Your task to perform on an android device: When is my next meeting? Image 0: 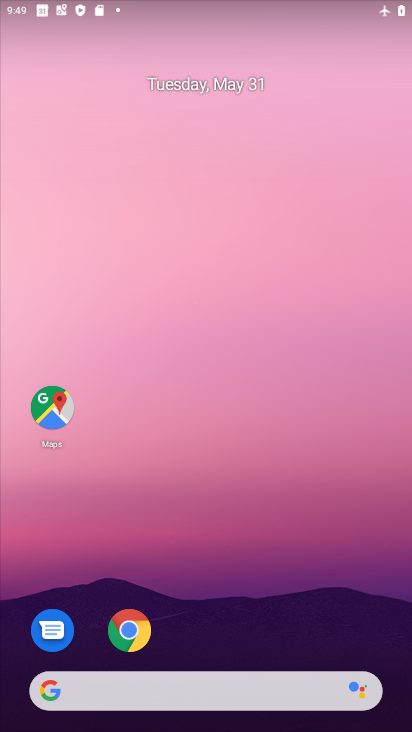
Step 0: click (211, 617)
Your task to perform on an android device: When is my next meeting? Image 1: 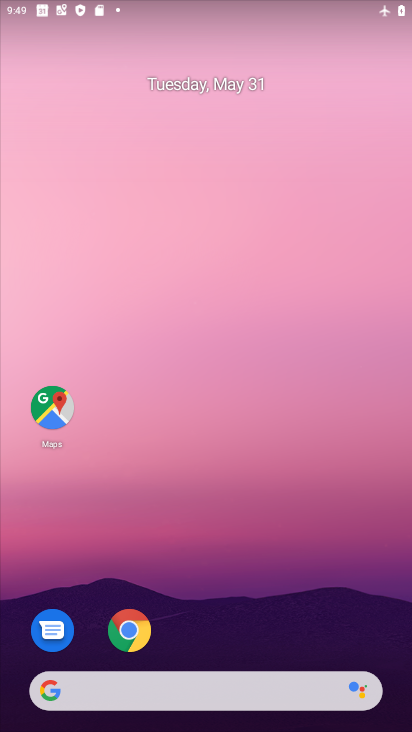
Step 1: click (240, 341)
Your task to perform on an android device: When is my next meeting? Image 2: 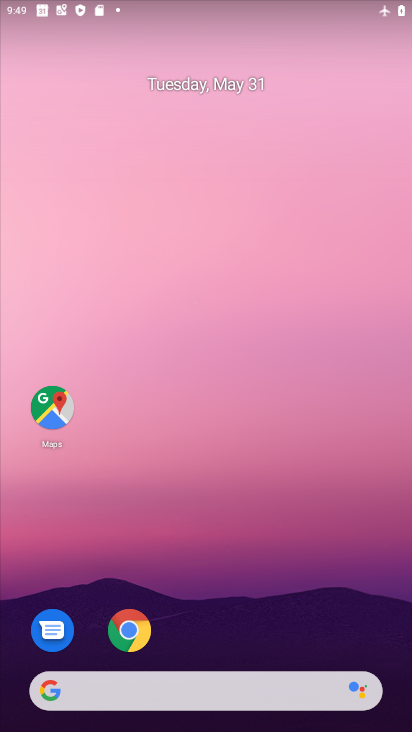
Step 2: drag from (220, 621) to (205, 233)
Your task to perform on an android device: When is my next meeting? Image 3: 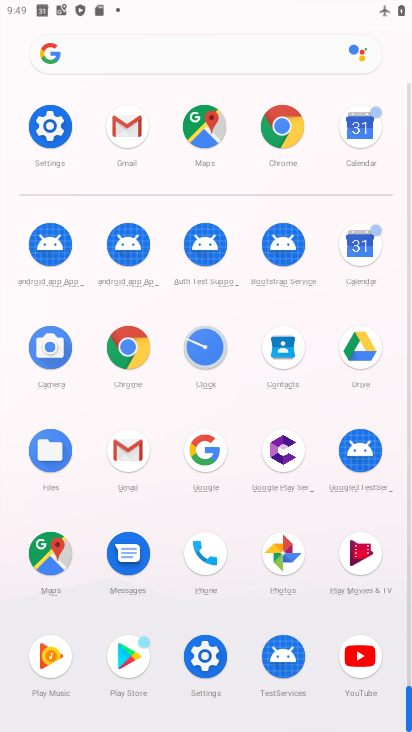
Step 3: click (385, 238)
Your task to perform on an android device: When is my next meeting? Image 4: 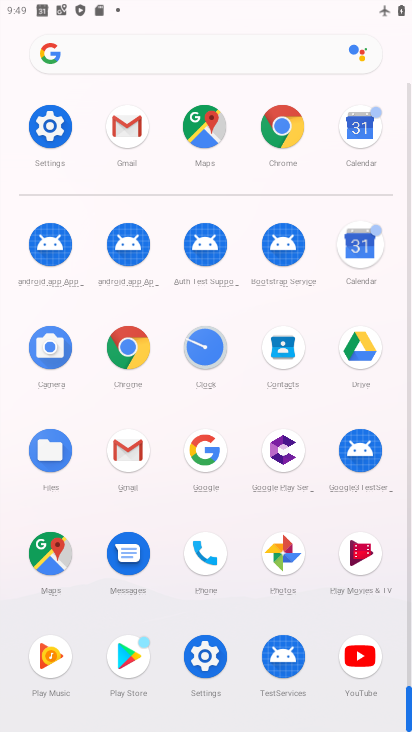
Step 4: click (361, 236)
Your task to perform on an android device: When is my next meeting? Image 5: 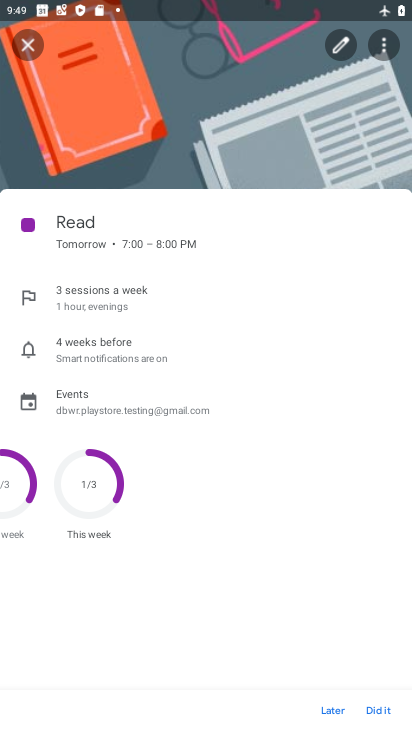
Step 5: click (36, 37)
Your task to perform on an android device: When is my next meeting? Image 6: 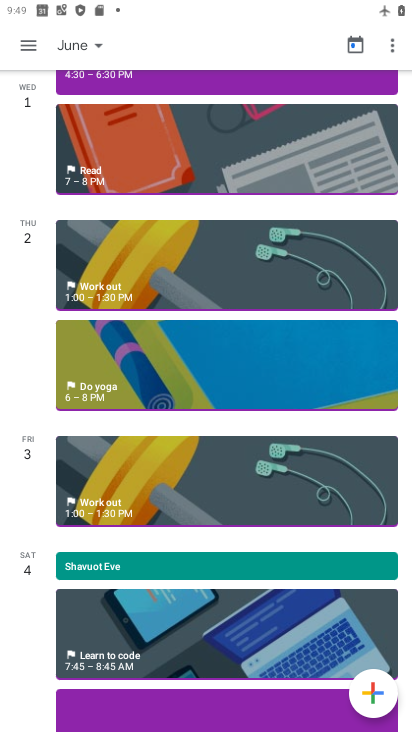
Step 6: click (29, 53)
Your task to perform on an android device: When is my next meeting? Image 7: 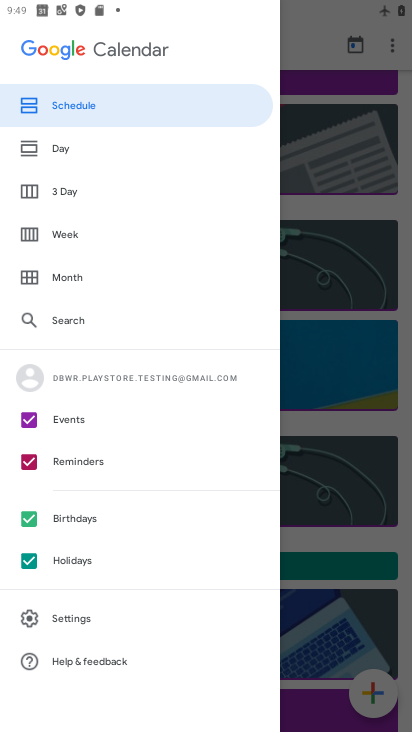
Step 7: click (81, 271)
Your task to perform on an android device: When is my next meeting? Image 8: 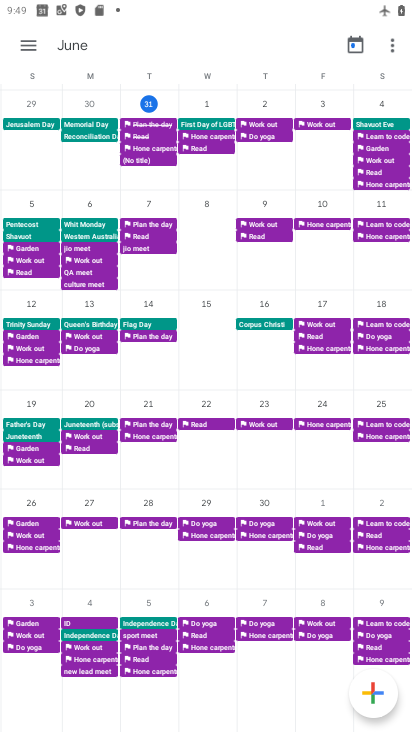
Step 8: click (261, 130)
Your task to perform on an android device: When is my next meeting? Image 9: 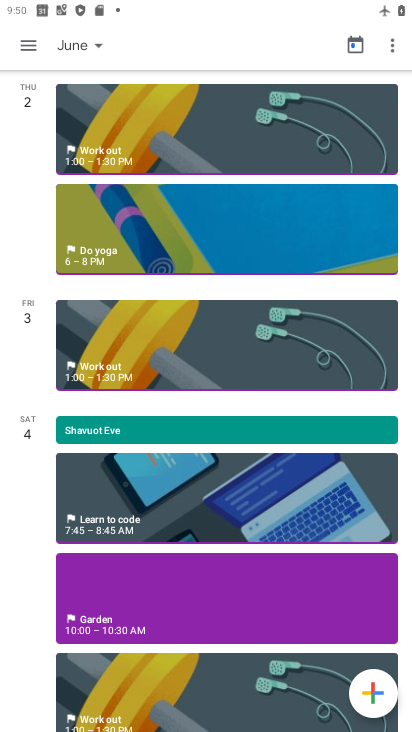
Step 9: task complete